Your task to perform on an android device: Show me popular games on the Play Store Image 0: 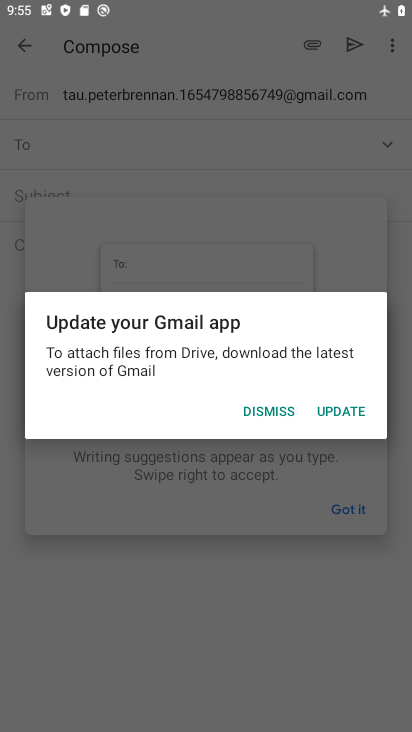
Step 0: press home button
Your task to perform on an android device: Show me popular games on the Play Store Image 1: 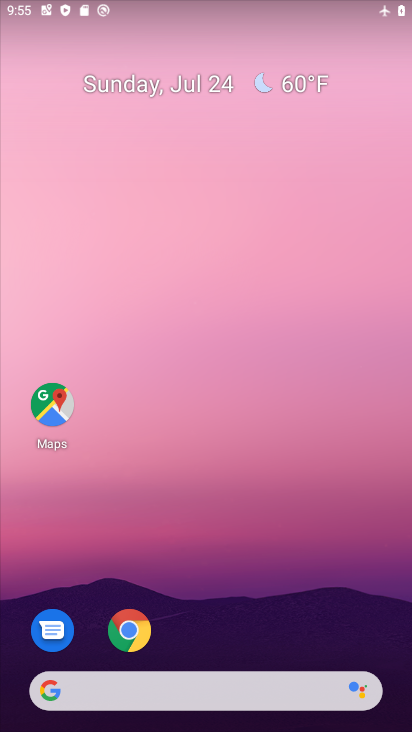
Step 1: drag from (194, 642) to (171, 99)
Your task to perform on an android device: Show me popular games on the Play Store Image 2: 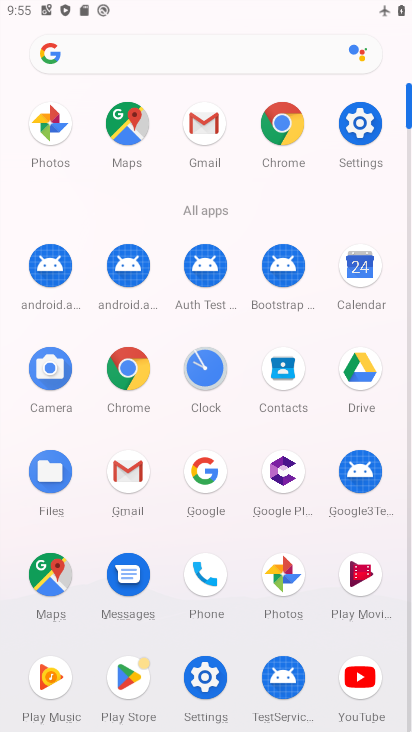
Step 2: click (128, 683)
Your task to perform on an android device: Show me popular games on the Play Store Image 3: 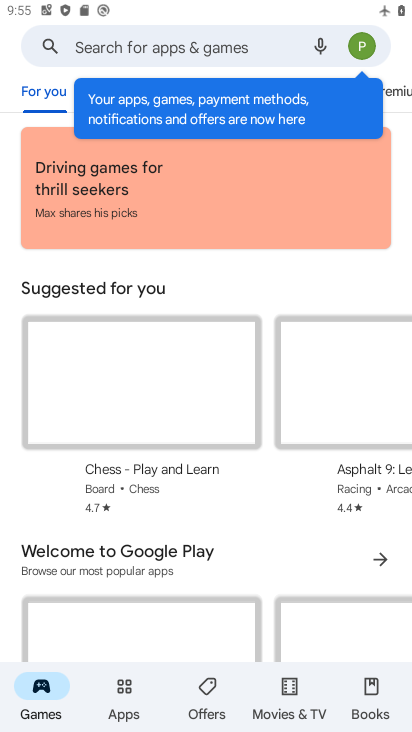
Step 3: drag from (39, 92) to (1, 99)
Your task to perform on an android device: Show me popular games on the Play Store Image 4: 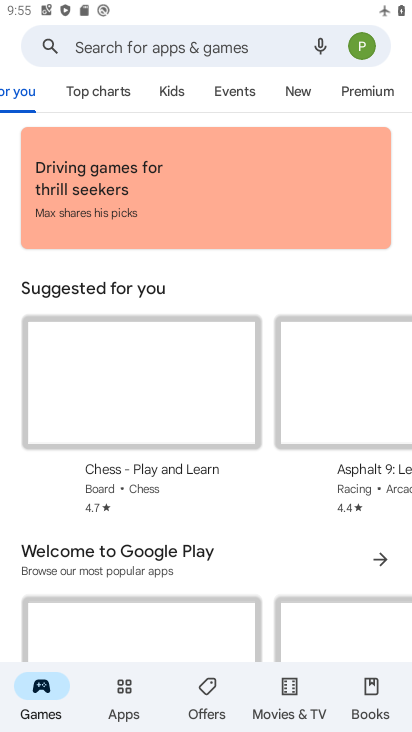
Step 4: click (102, 97)
Your task to perform on an android device: Show me popular games on the Play Store Image 5: 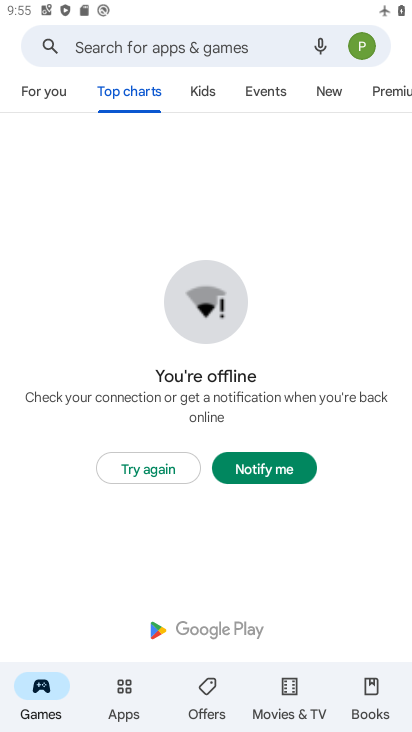
Step 5: click (123, 471)
Your task to perform on an android device: Show me popular games on the Play Store Image 6: 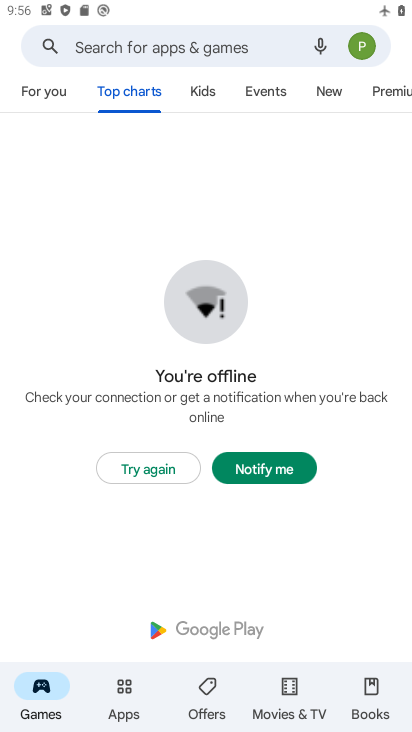
Step 6: click (159, 469)
Your task to perform on an android device: Show me popular games on the Play Store Image 7: 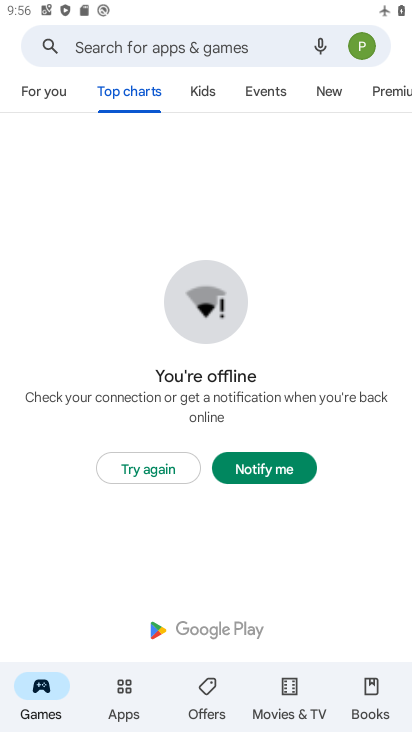
Step 7: task complete